Your task to perform on an android device: see creations saved in the google photos Image 0: 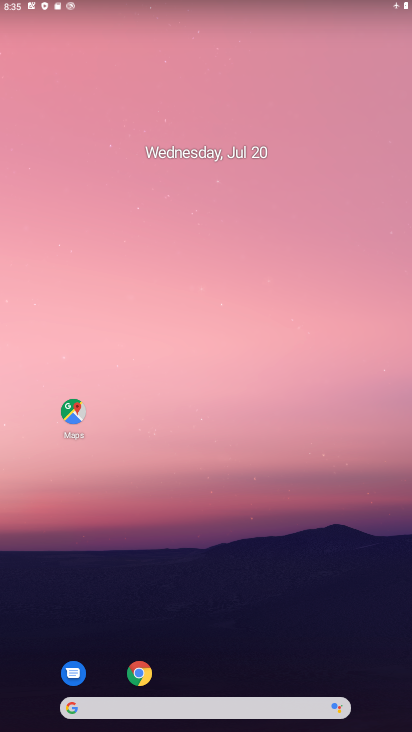
Step 0: drag from (195, 726) to (195, 181)
Your task to perform on an android device: see creations saved in the google photos Image 1: 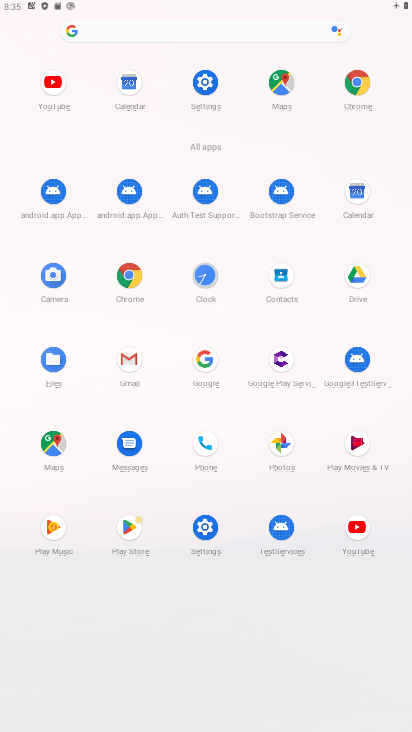
Step 1: click (282, 448)
Your task to perform on an android device: see creations saved in the google photos Image 2: 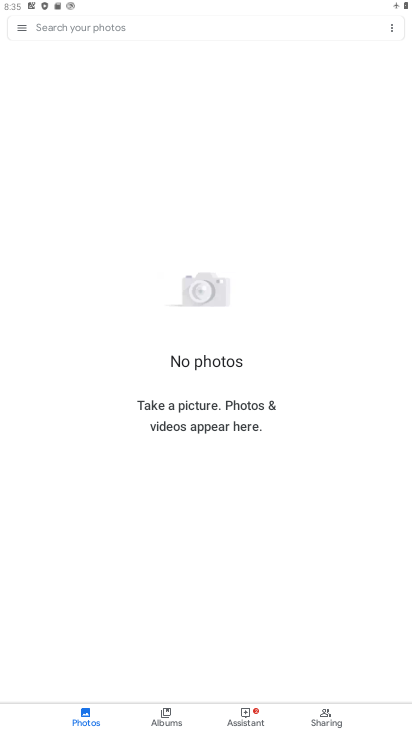
Step 2: click (99, 24)
Your task to perform on an android device: see creations saved in the google photos Image 3: 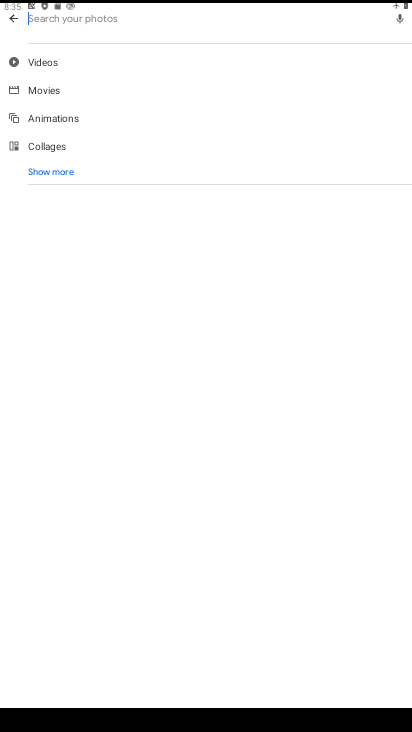
Step 3: click (51, 166)
Your task to perform on an android device: see creations saved in the google photos Image 4: 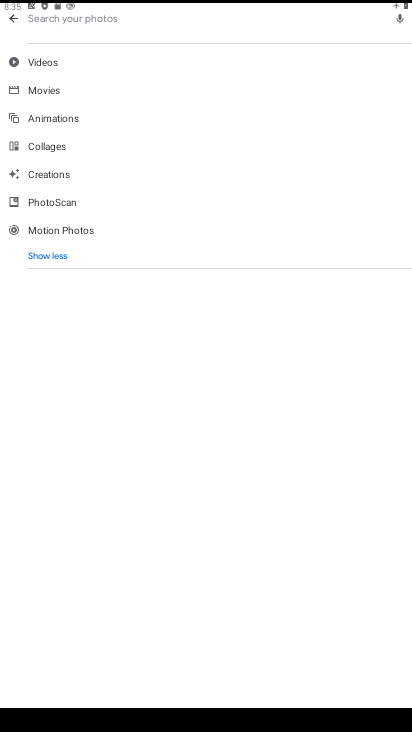
Step 4: click (50, 172)
Your task to perform on an android device: see creations saved in the google photos Image 5: 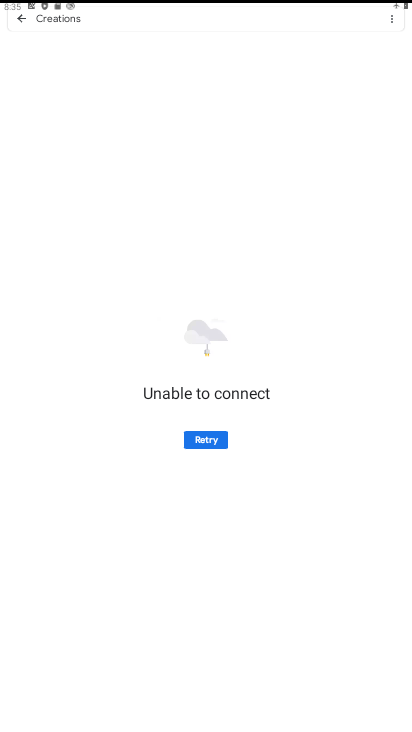
Step 5: click (202, 436)
Your task to perform on an android device: see creations saved in the google photos Image 6: 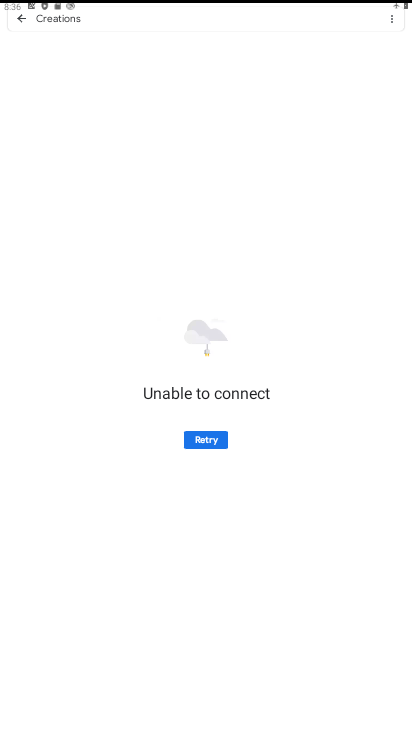
Step 6: task complete